Your task to perform on an android device: turn off smart reply in the gmail app Image 0: 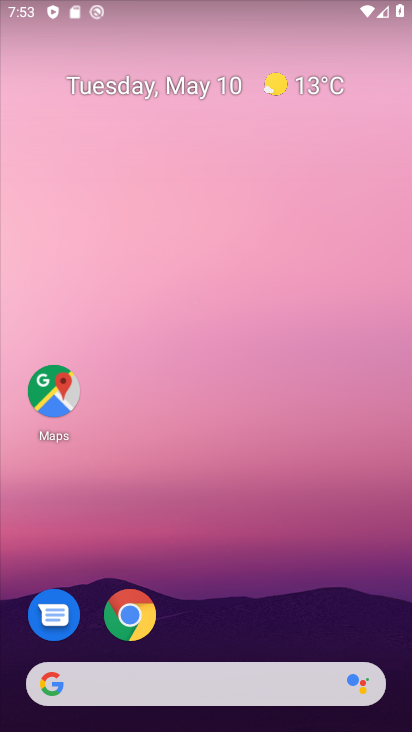
Step 0: drag from (321, 719) to (263, 62)
Your task to perform on an android device: turn off smart reply in the gmail app Image 1: 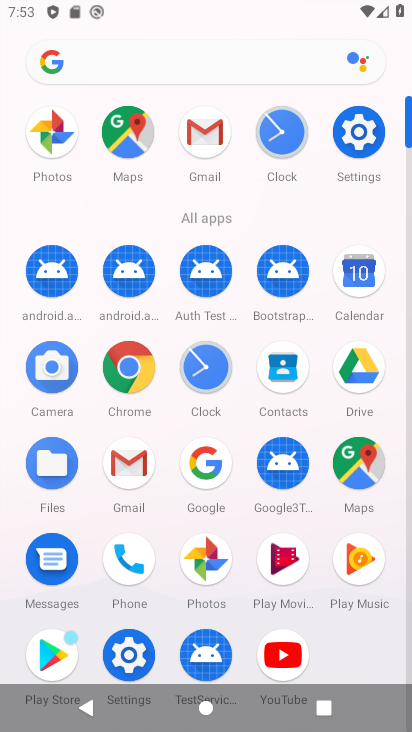
Step 1: click (144, 470)
Your task to perform on an android device: turn off smart reply in the gmail app Image 2: 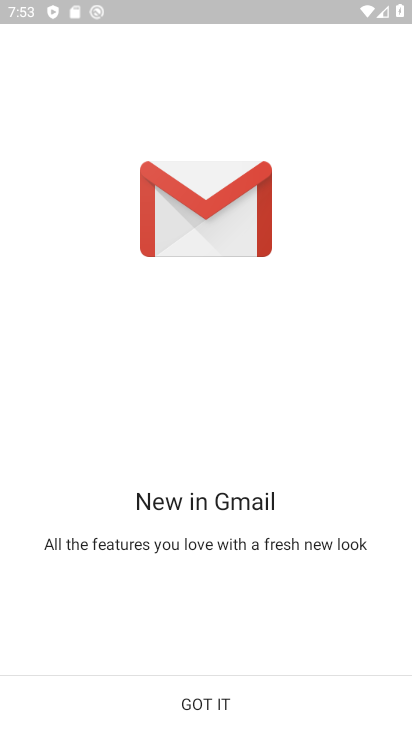
Step 2: click (215, 705)
Your task to perform on an android device: turn off smart reply in the gmail app Image 3: 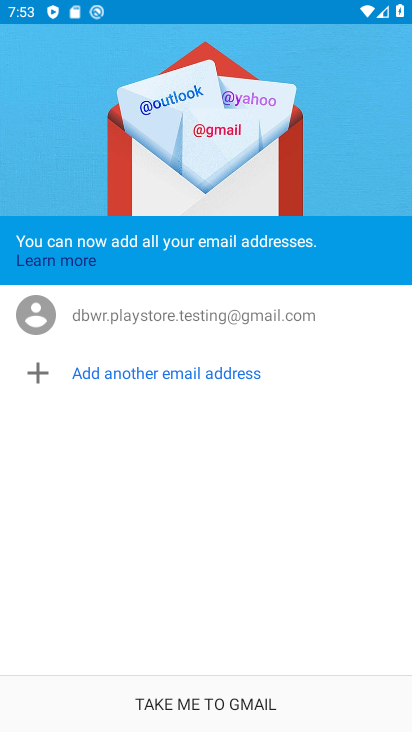
Step 3: click (230, 704)
Your task to perform on an android device: turn off smart reply in the gmail app Image 4: 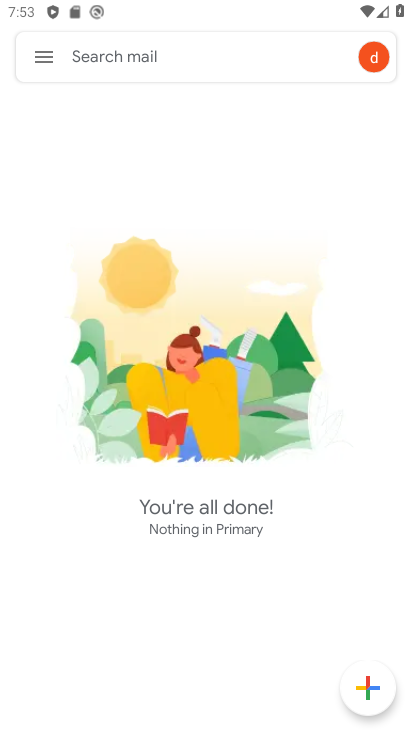
Step 4: click (36, 63)
Your task to perform on an android device: turn off smart reply in the gmail app Image 5: 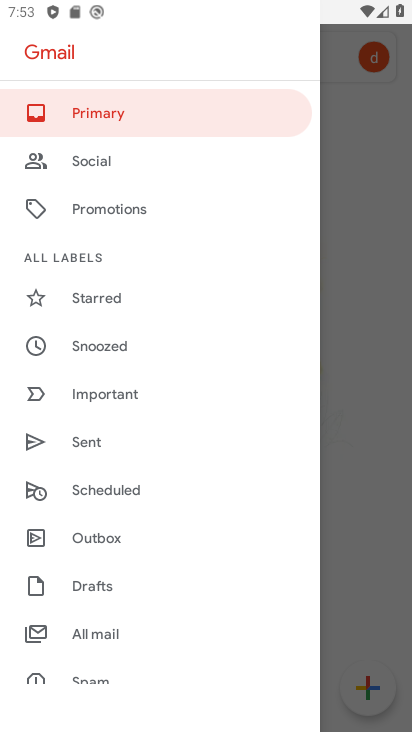
Step 5: drag from (227, 471) to (212, 206)
Your task to perform on an android device: turn off smart reply in the gmail app Image 6: 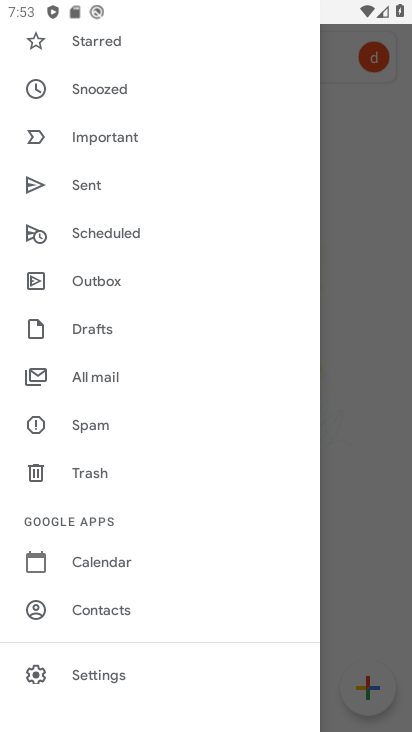
Step 6: click (140, 670)
Your task to perform on an android device: turn off smart reply in the gmail app Image 7: 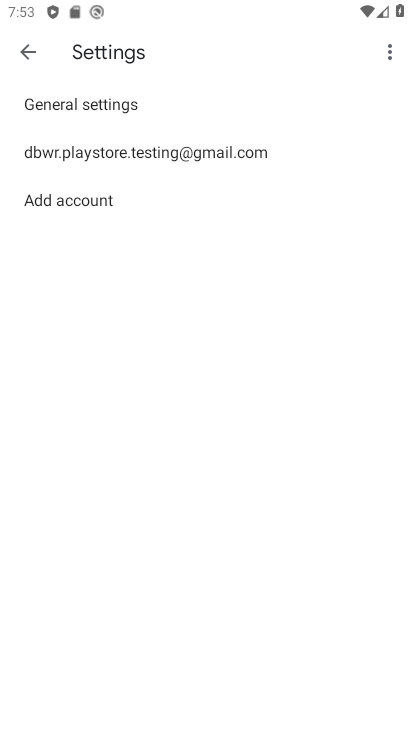
Step 7: click (136, 150)
Your task to perform on an android device: turn off smart reply in the gmail app Image 8: 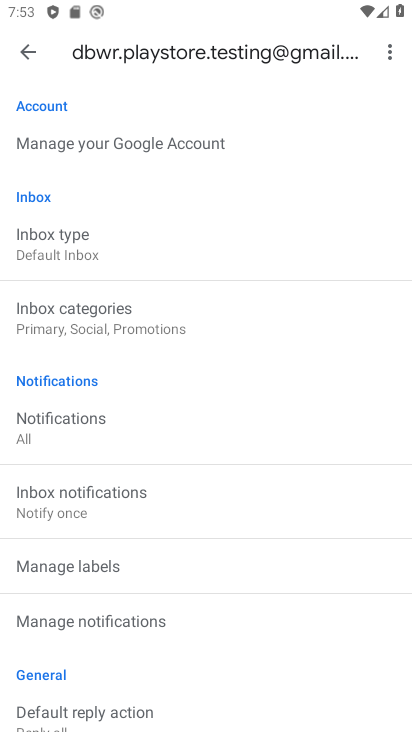
Step 8: drag from (191, 560) to (245, 239)
Your task to perform on an android device: turn off smart reply in the gmail app Image 9: 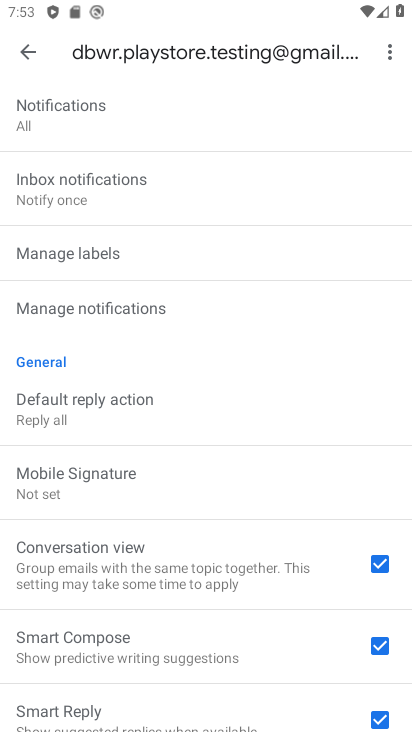
Step 9: drag from (256, 701) to (269, 369)
Your task to perform on an android device: turn off smart reply in the gmail app Image 10: 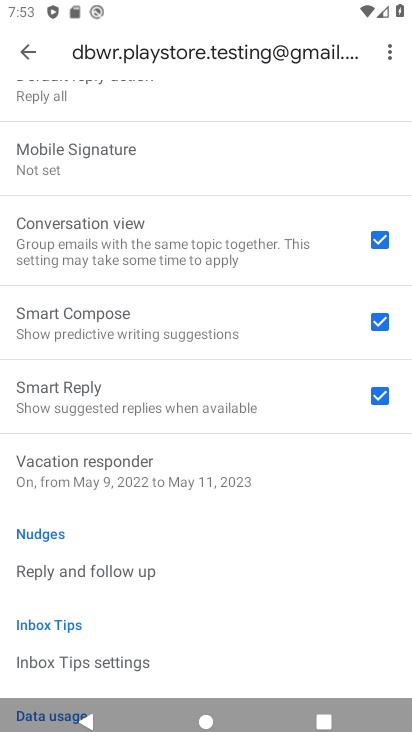
Step 10: click (382, 397)
Your task to perform on an android device: turn off smart reply in the gmail app Image 11: 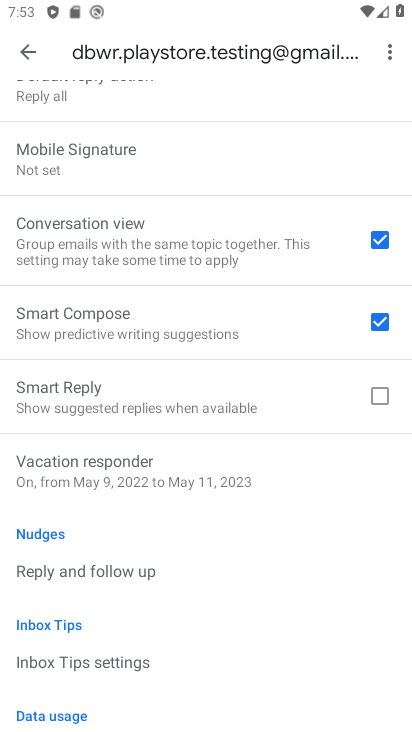
Step 11: task complete